Your task to perform on an android device: visit the assistant section in the google photos Image 0: 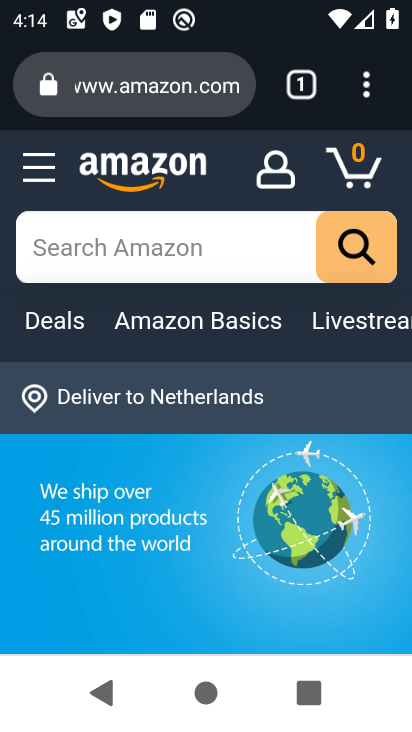
Step 0: press home button
Your task to perform on an android device: visit the assistant section in the google photos Image 1: 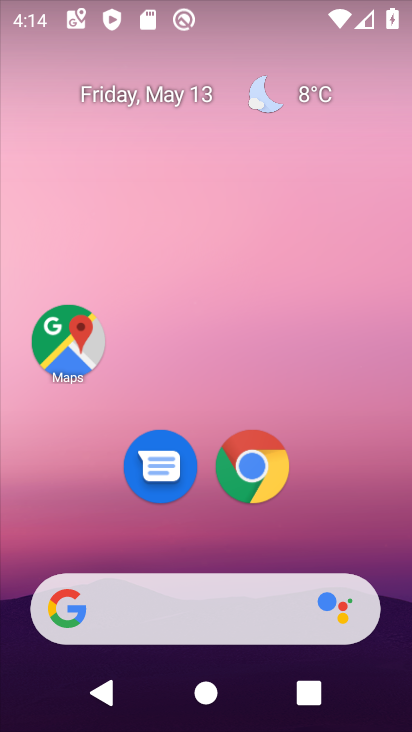
Step 1: drag from (367, 562) to (331, 94)
Your task to perform on an android device: visit the assistant section in the google photos Image 2: 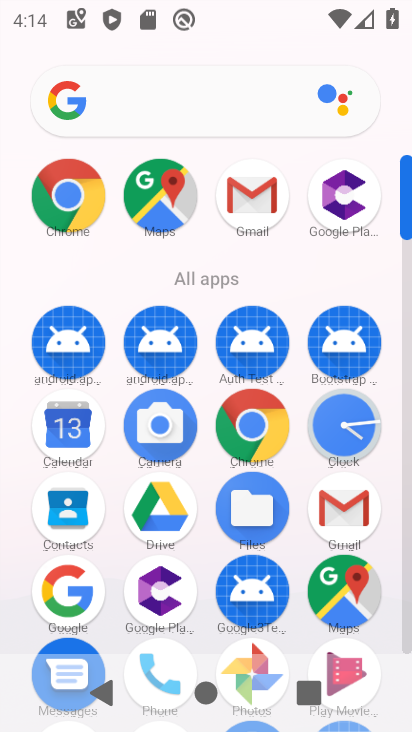
Step 2: click (404, 636)
Your task to perform on an android device: visit the assistant section in the google photos Image 3: 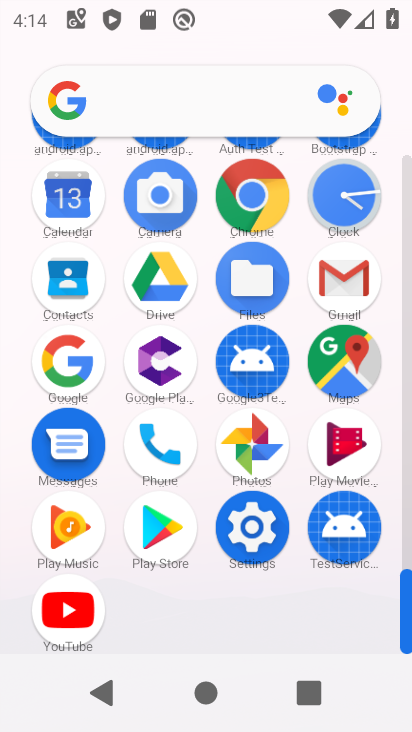
Step 3: click (250, 438)
Your task to perform on an android device: visit the assistant section in the google photos Image 4: 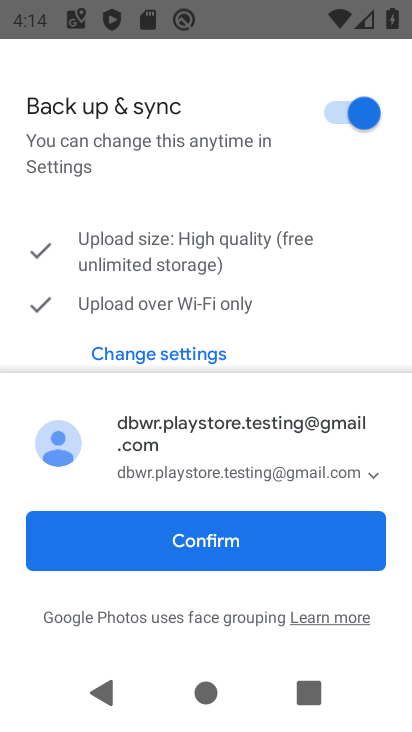
Step 4: click (197, 530)
Your task to perform on an android device: visit the assistant section in the google photos Image 5: 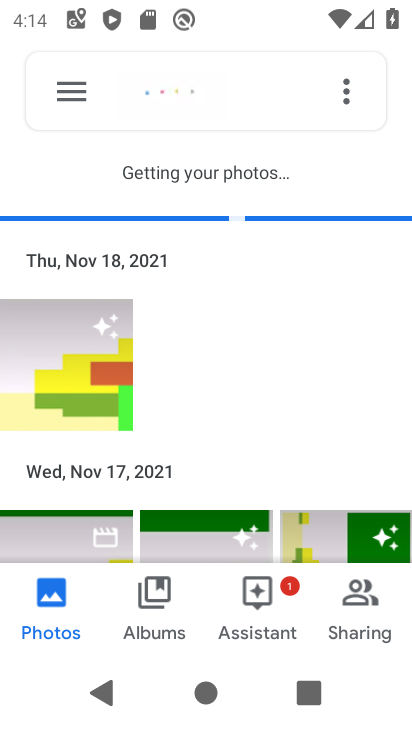
Step 5: click (263, 593)
Your task to perform on an android device: visit the assistant section in the google photos Image 6: 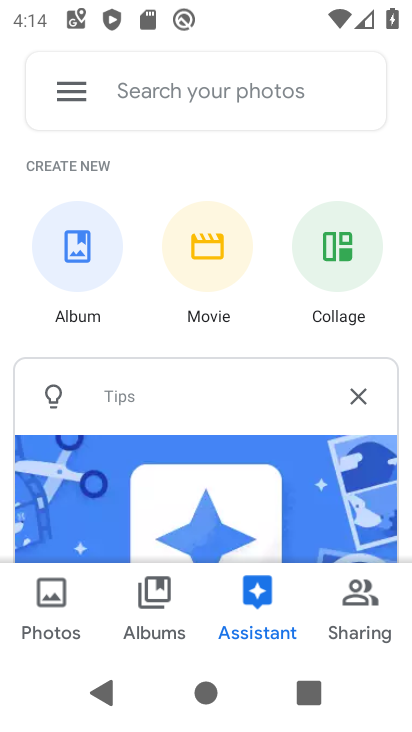
Step 6: task complete